Your task to perform on an android device: Go to internet settings Image 0: 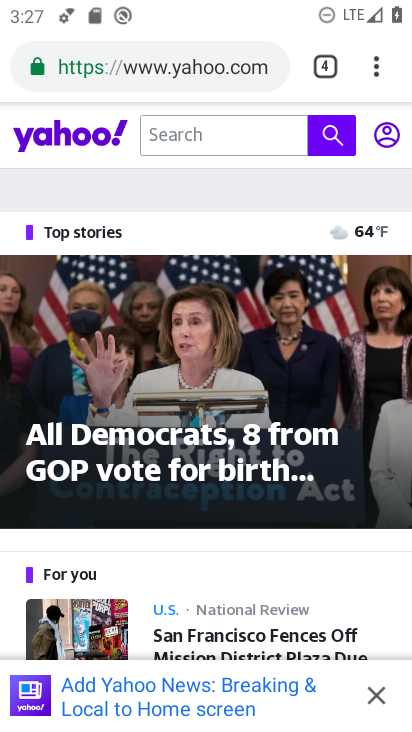
Step 0: press home button
Your task to perform on an android device: Go to internet settings Image 1: 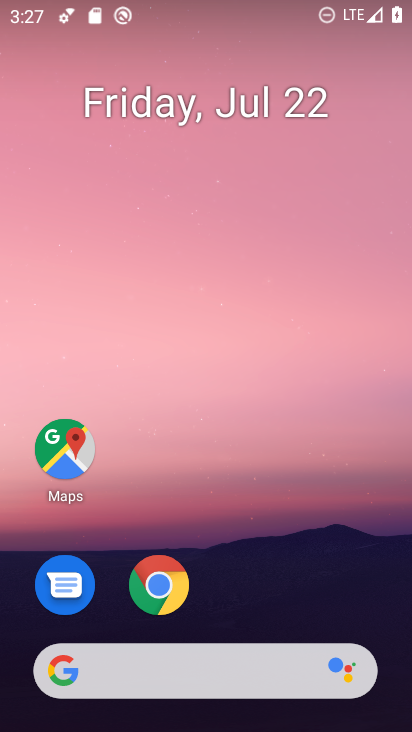
Step 1: drag from (245, 538) to (231, 58)
Your task to perform on an android device: Go to internet settings Image 2: 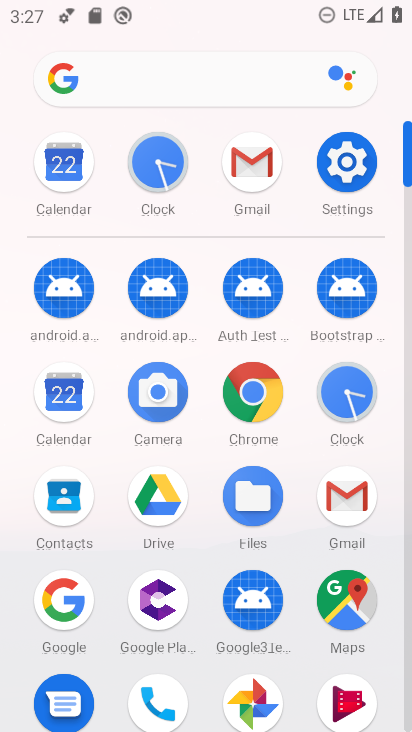
Step 2: click (356, 168)
Your task to perform on an android device: Go to internet settings Image 3: 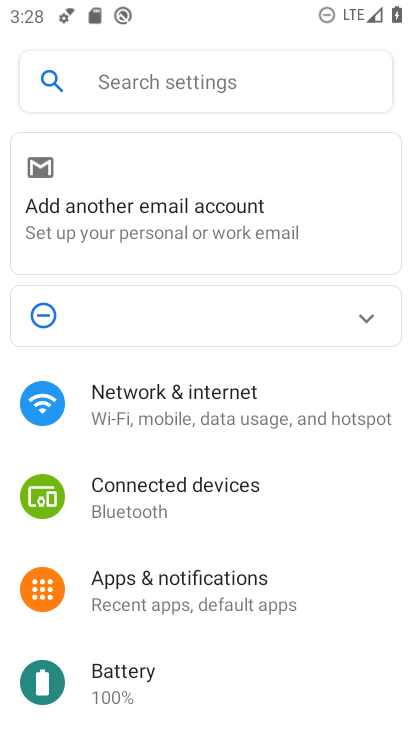
Step 3: click (257, 419)
Your task to perform on an android device: Go to internet settings Image 4: 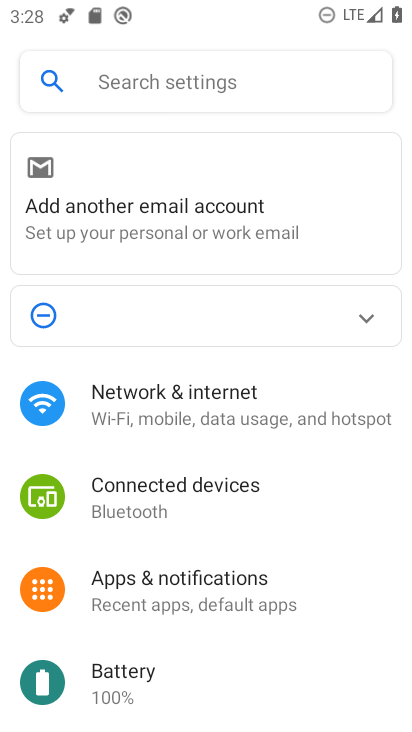
Step 4: click (255, 404)
Your task to perform on an android device: Go to internet settings Image 5: 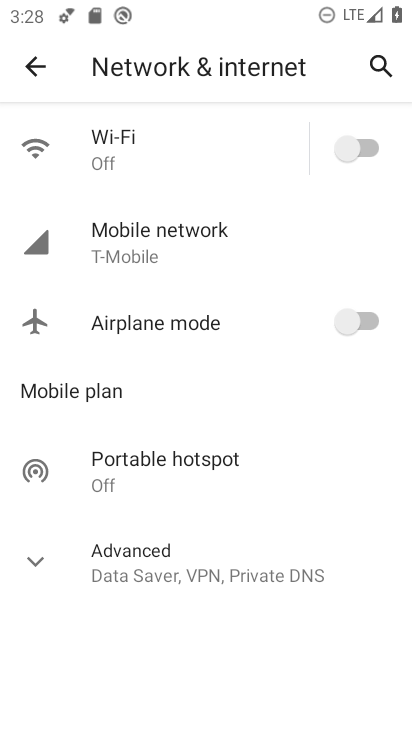
Step 5: task complete